Your task to perform on an android device: change alarm snooze length Image 0: 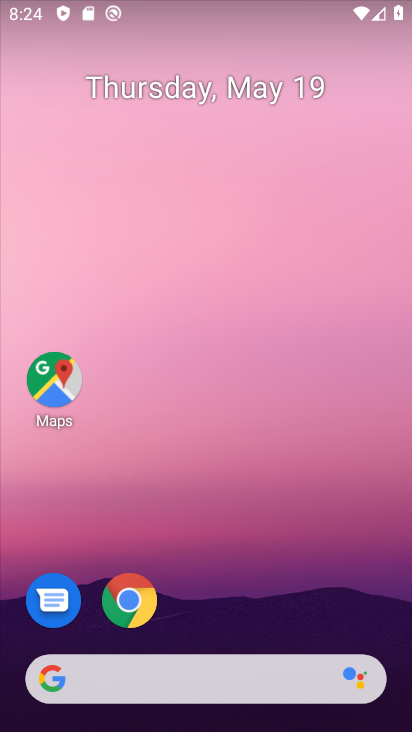
Step 0: drag from (235, 599) to (308, 99)
Your task to perform on an android device: change alarm snooze length Image 1: 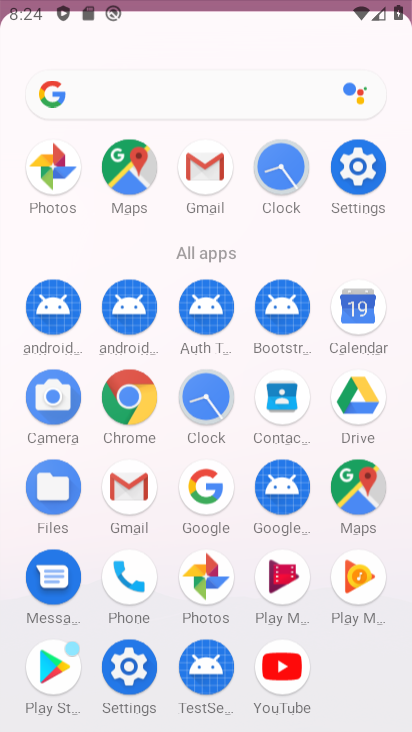
Step 1: drag from (286, 519) to (305, 202)
Your task to perform on an android device: change alarm snooze length Image 2: 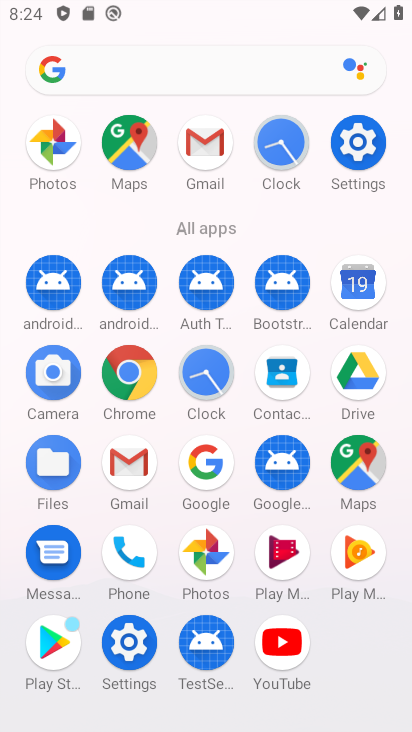
Step 2: click (292, 175)
Your task to perform on an android device: change alarm snooze length Image 3: 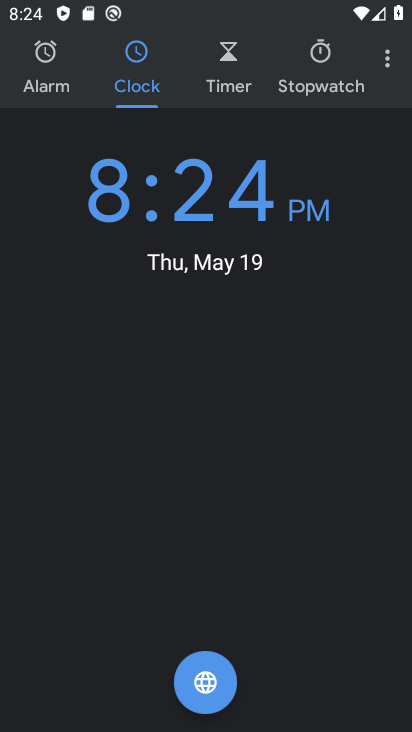
Step 3: click (387, 63)
Your task to perform on an android device: change alarm snooze length Image 4: 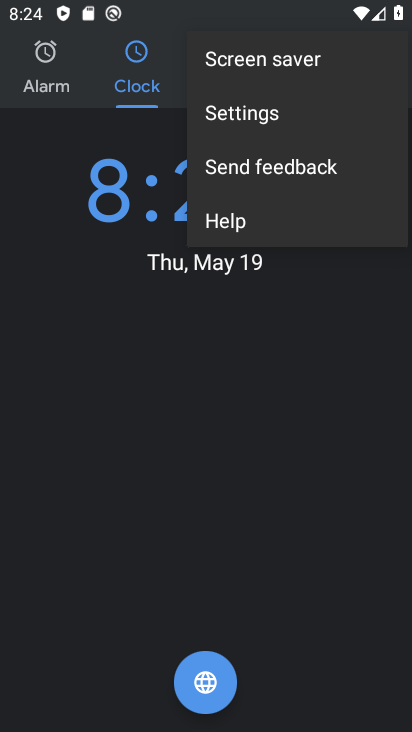
Step 4: click (387, 63)
Your task to perform on an android device: change alarm snooze length Image 5: 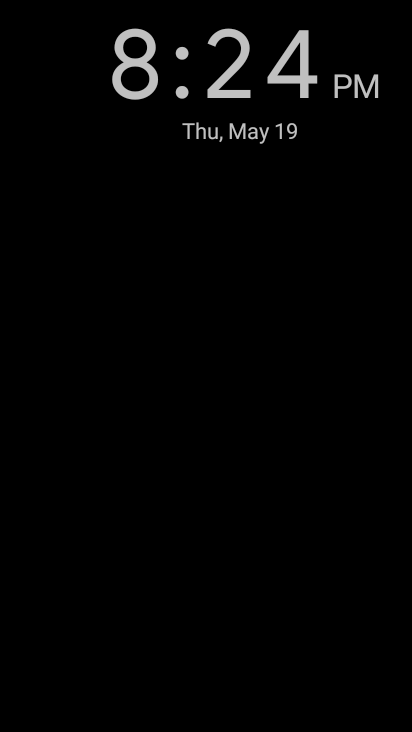
Step 5: click (270, 285)
Your task to perform on an android device: change alarm snooze length Image 6: 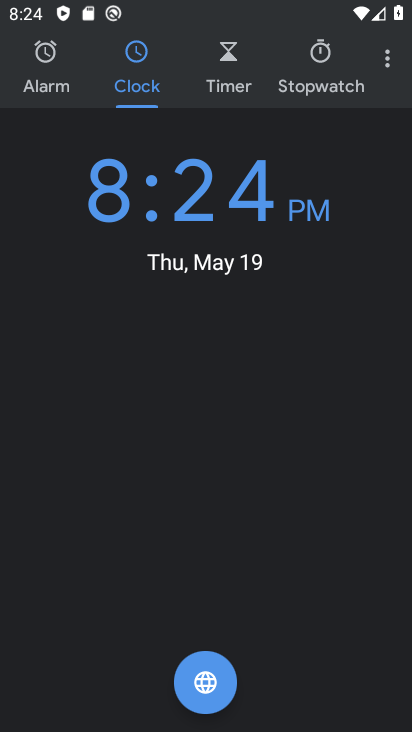
Step 6: click (385, 59)
Your task to perform on an android device: change alarm snooze length Image 7: 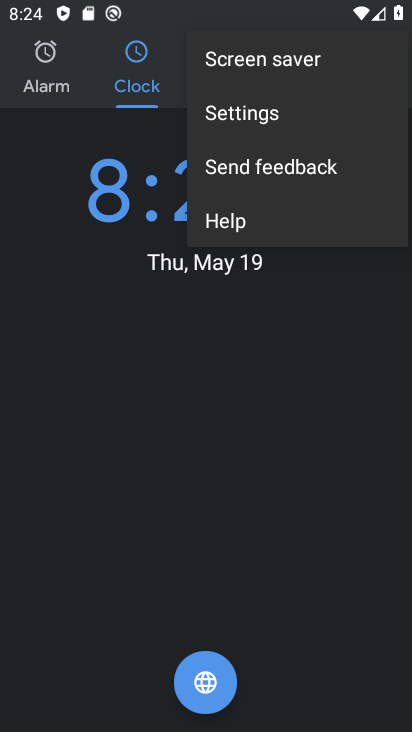
Step 7: click (259, 125)
Your task to perform on an android device: change alarm snooze length Image 8: 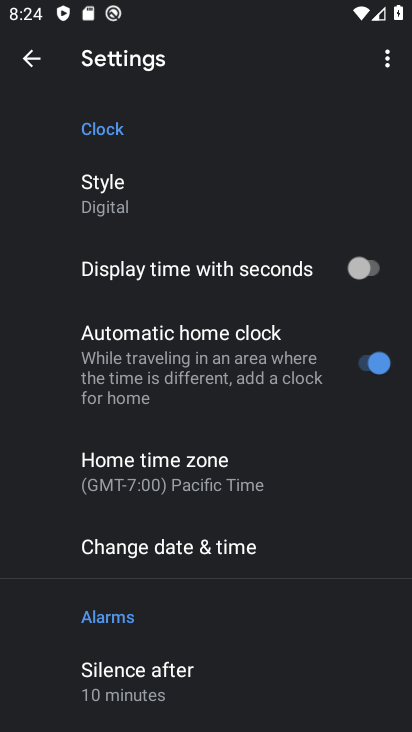
Step 8: drag from (206, 596) to (294, 133)
Your task to perform on an android device: change alarm snooze length Image 9: 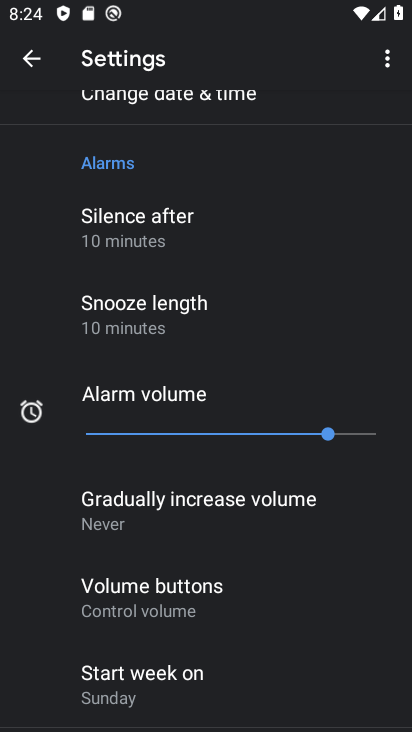
Step 9: click (185, 311)
Your task to perform on an android device: change alarm snooze length Image 10: 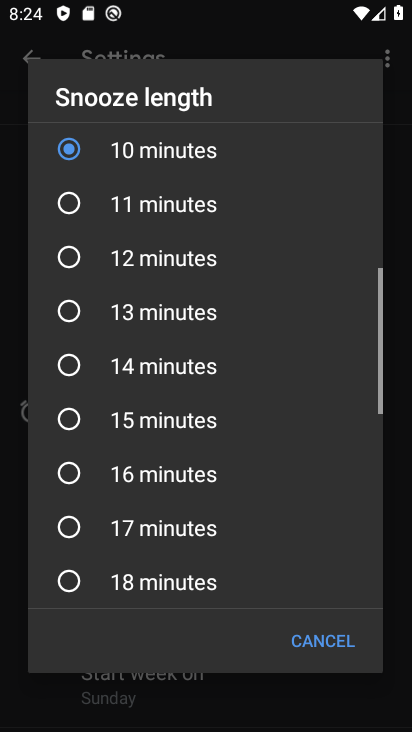
Step 10: click (191, 188)
Your task to perform on an android device: change alarm snooze length Image 11: 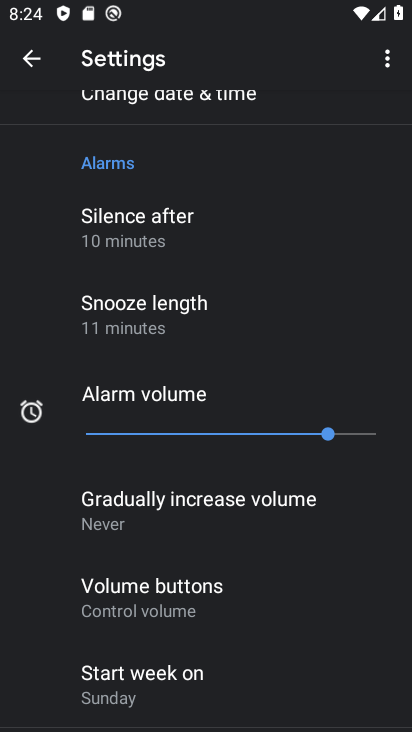
Step 11: task complete